Your task to perform on an android device: Clear the cart on costco. Search for "razer kraken" on costco, select the first entry, and add it to the cart. Image 0: 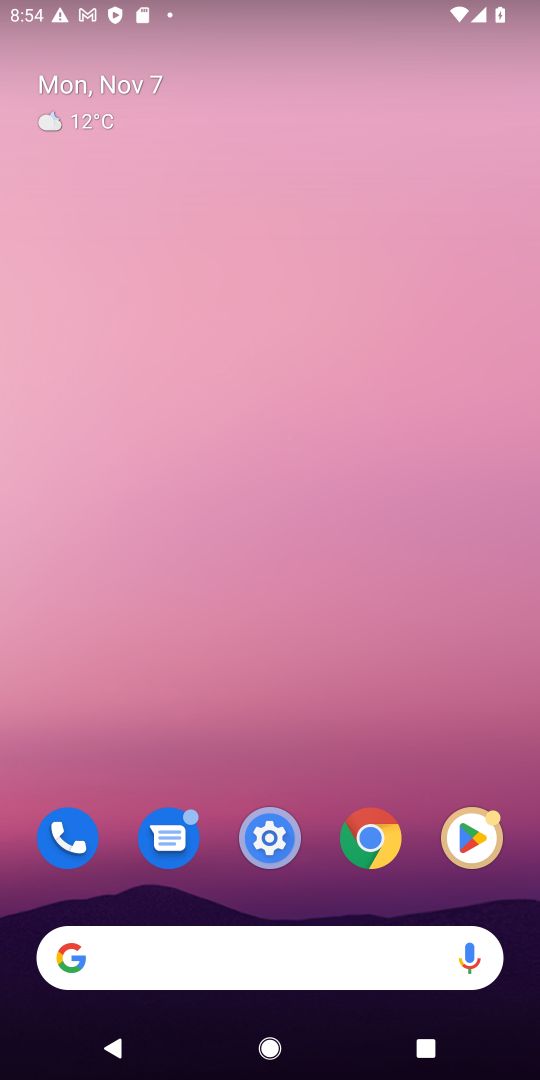
Step 0: click (365, 834)
Your task to perform on an android device: Clear the cart on costco. Search for "razer kraken" on costco, select the first entry, and add it to the cart. Image 1: 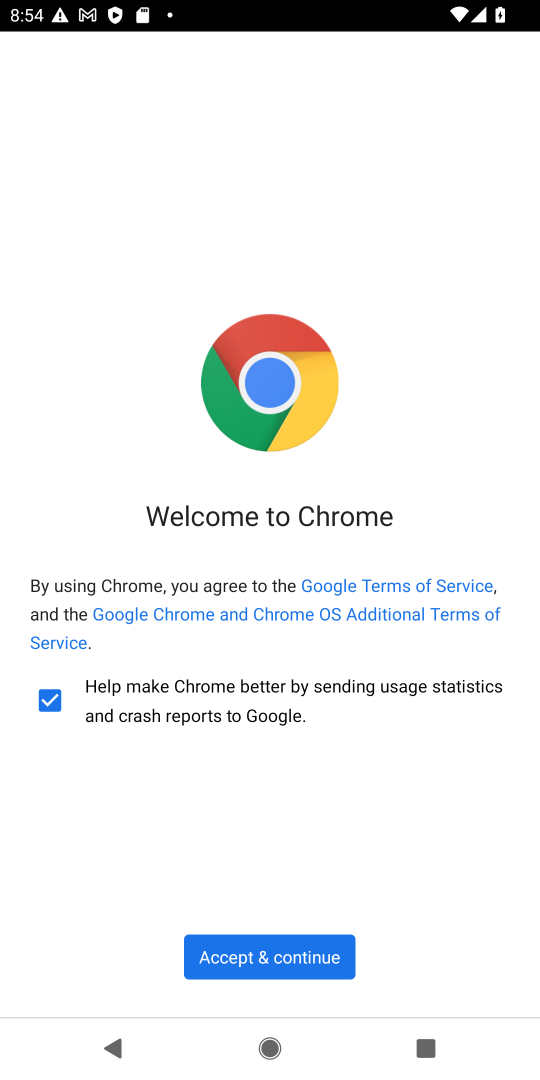
Step 1: click (324, 955)
Your task to perform on an android device: Clear the cart on costco. Search for "razer kraken" on costco, select the first entry, and add it to the cart. Image 2: 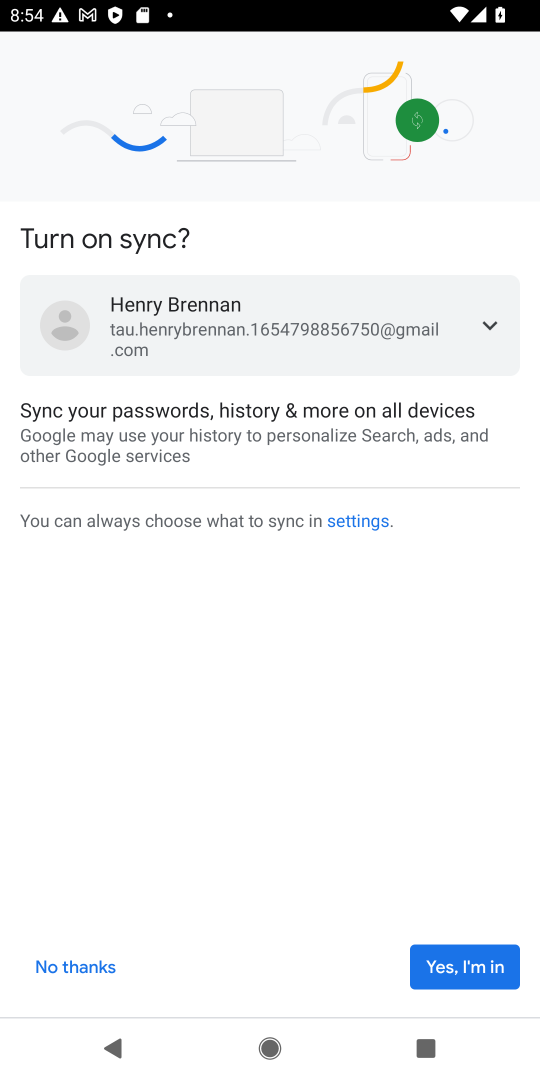
Step 2: click (435, 963)
Your task to perform on an android device: Clear the cart on costco. Search for "razer kraken" on costco, select the first entry, and add it to the cart. Image 3: 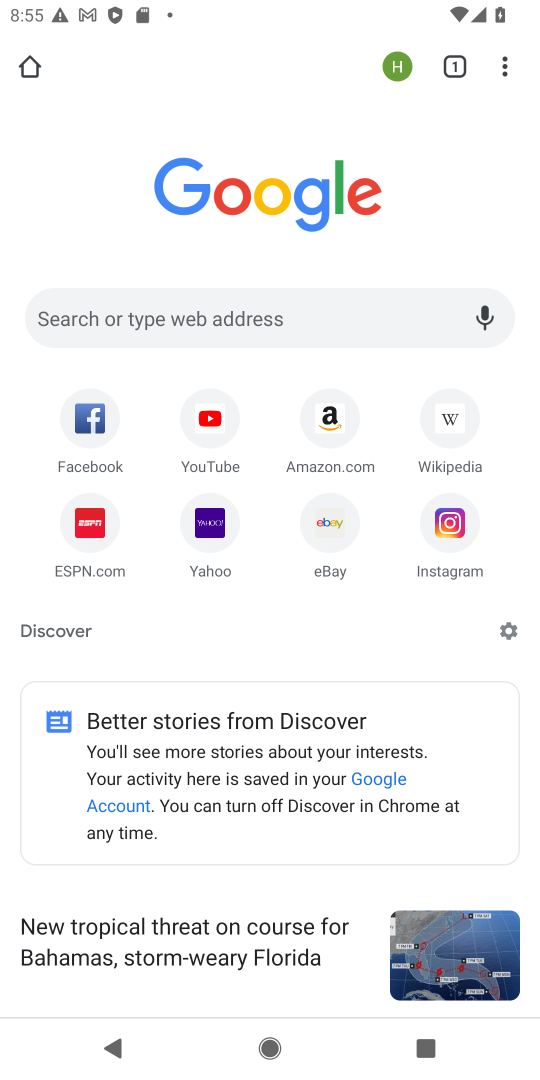
Step 3: click (200, 326)
Your task to perform on an android device: Clear the cart on costco. Search for "razer kraken" on costco, select the first entry, and add it to the cart. Image 4: 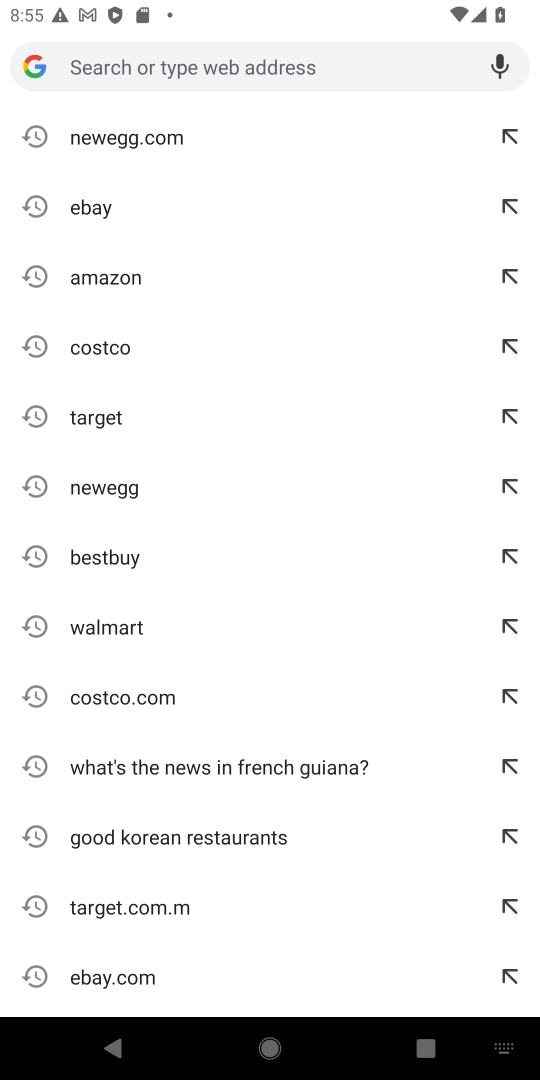
Step 4: click (115, 688)
Your task to perform on an android device: Clear the cart on costco. Search for "razer kraken" on costco, select the first entry, and add it to the cart. Image 5: 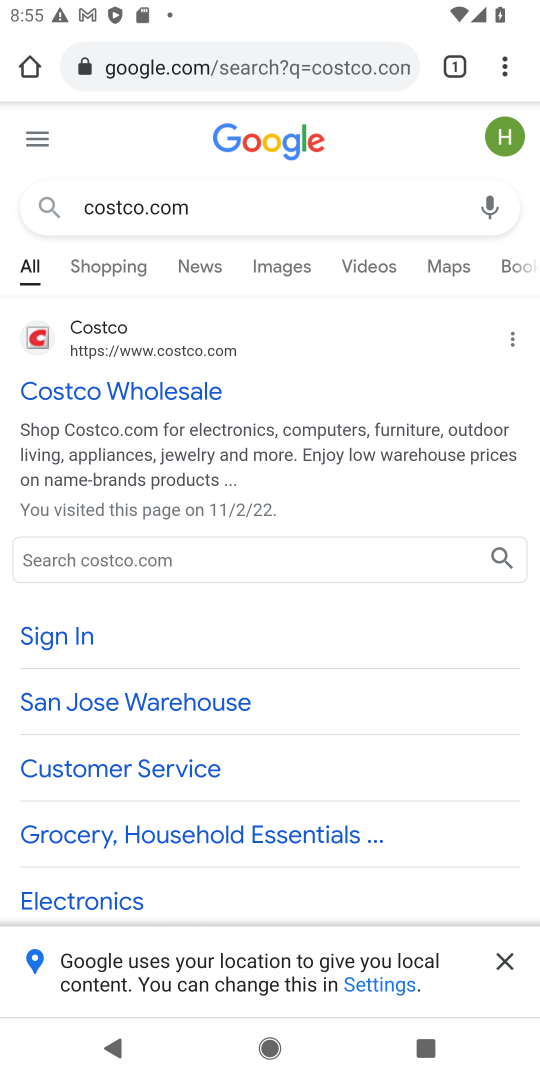
Step 5: click (159, 555)
Your task to perform on an android device: Clear the cart on costco. Search for "razer kraken" on costco, select the first entry, and add it to the cart. Image 6: 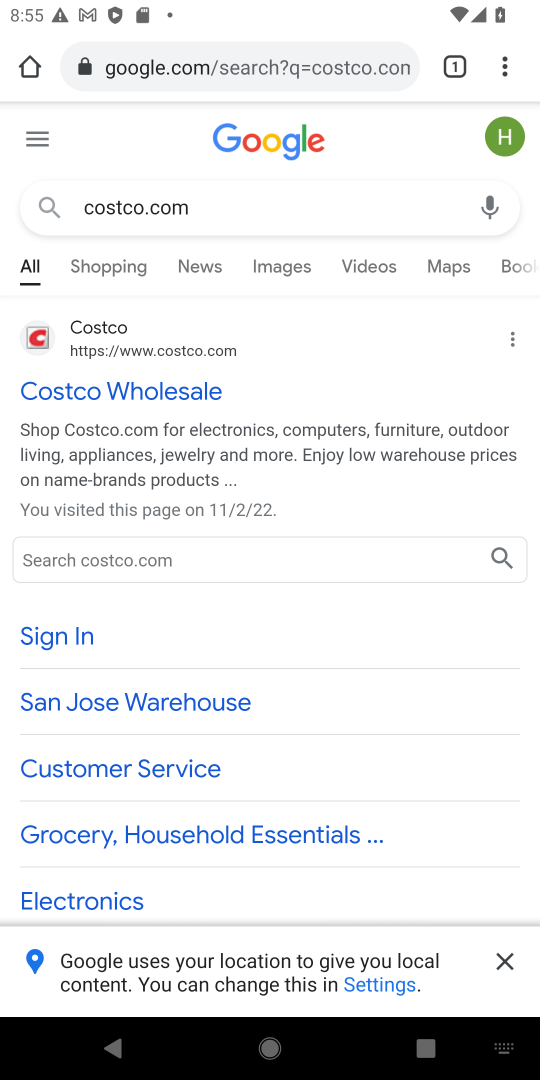
Step 6: type "razer kraken"
Your task to perform on an android device: Clear the cart on costco. Search for "razer kraken" on costco, select the first entry, and add it to the cart. Image 7: 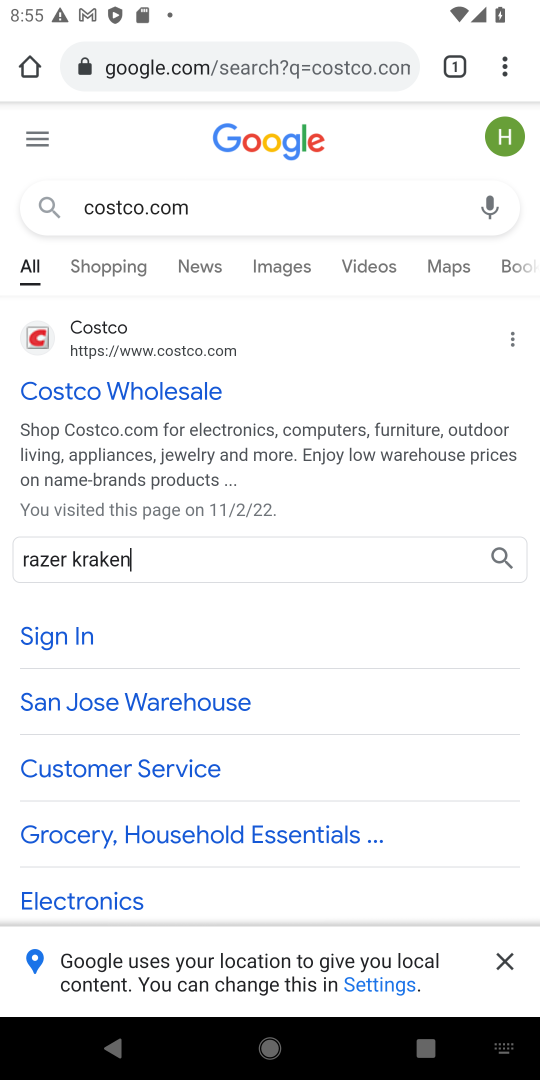
Step 7: click (499, 555)
Your task to perform on an android device: Clear the cart on costco. Search for "razer kraken" on costco, select the first entry, and add it to the cart. Image 8: 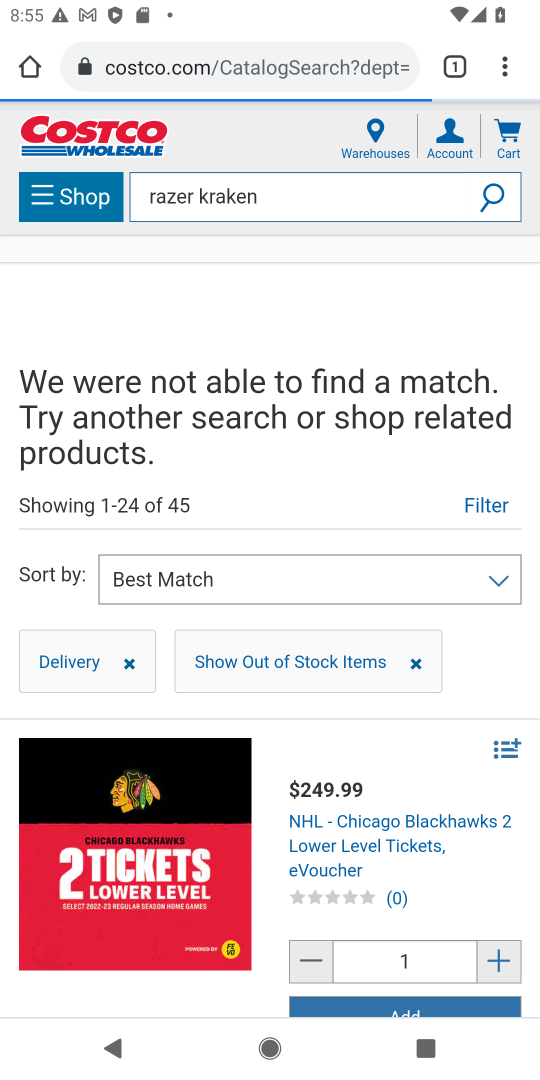
Step 8: drag from (401, 767) to (495, 288)
Your task to perform on an android device: Clear the cart on costco. Search for "razer kraken" on costco, select the first entry, and add it to the cart. Image 9: 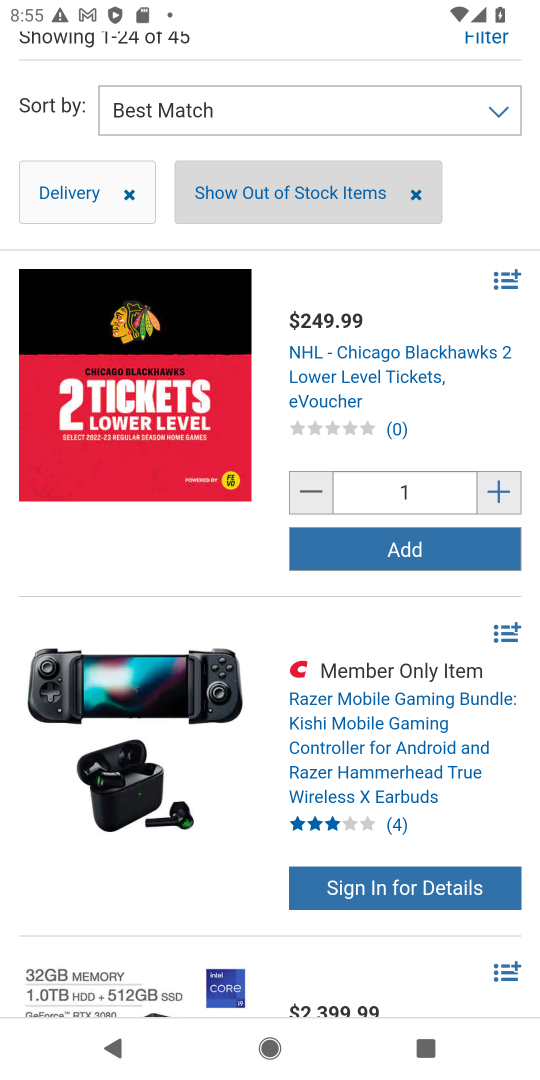
Step 9: click (428, 813)
Your task to perform on an android device: Clear the cart on costco. Search for "razer kraken" on costco, select the first entry, and add it to the cart. Image 10: 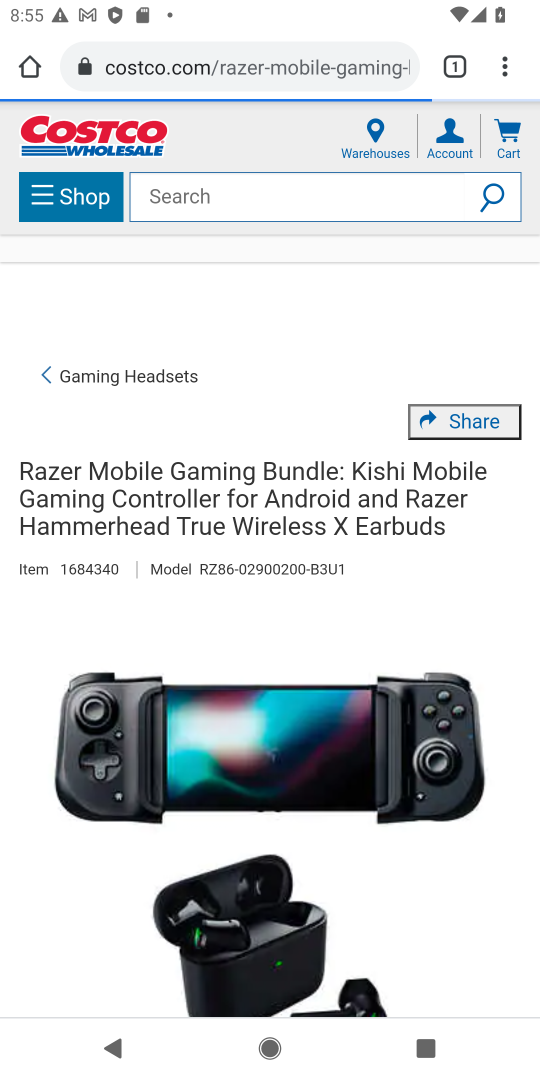
Step 10: drag from (457, 1004) to (526, 583)
Your task to perform on an android device: Clear the cart on costco. Search for "razer kraken" on costco, select the first entry, and add it to the cart. Image 11: 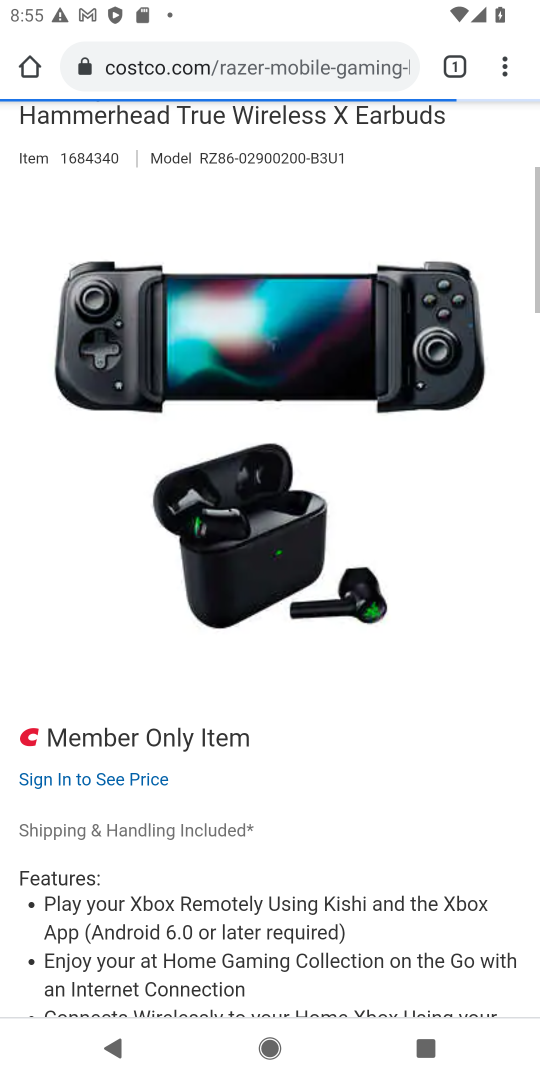
Step 11: drag from (322, 890) to (425, 403)
Your task to perform on an android device: Clear the cart on costco. Search for "razer kraken" on costco, select the first entry, and add it to the cart. Image 12: 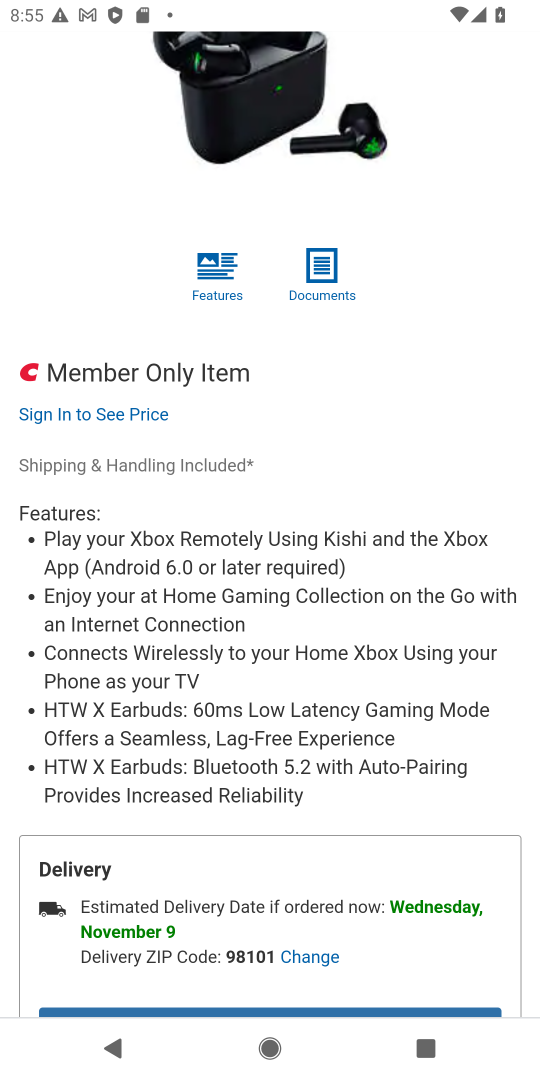
Step 12: drag from (290, 839) to (447, 266)
Your task to perform on an android device: Clear the cart on costco. Search for "razer kraken" on costco, select the first entry, and add it to the cart. Image 13: 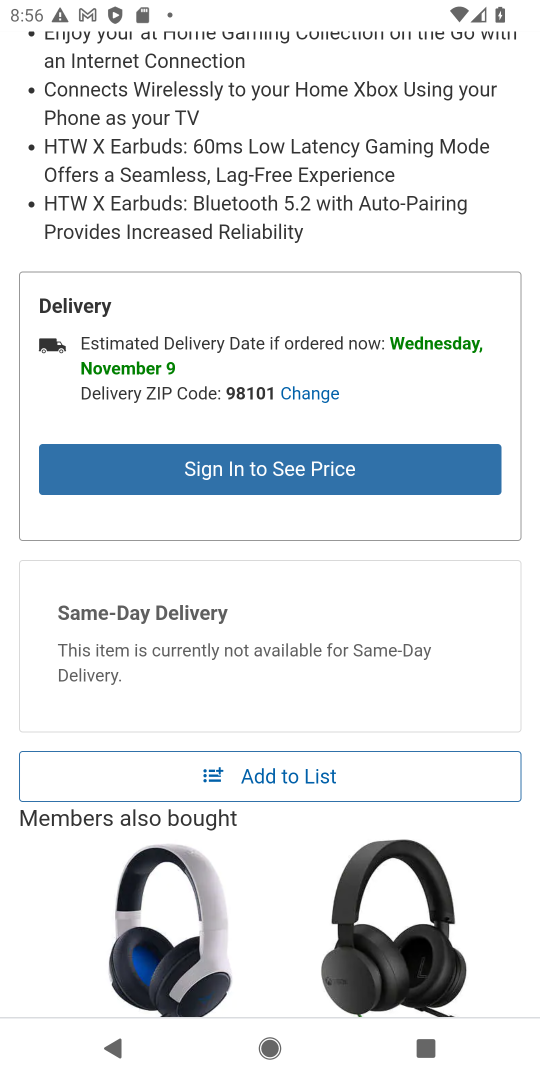
Step 13: click (234, 770)
Your task to perform on an android device: Clear the cart on costco. Search for "razer kraken" on costco, select the first entry, and add it to the cart. Image 14: 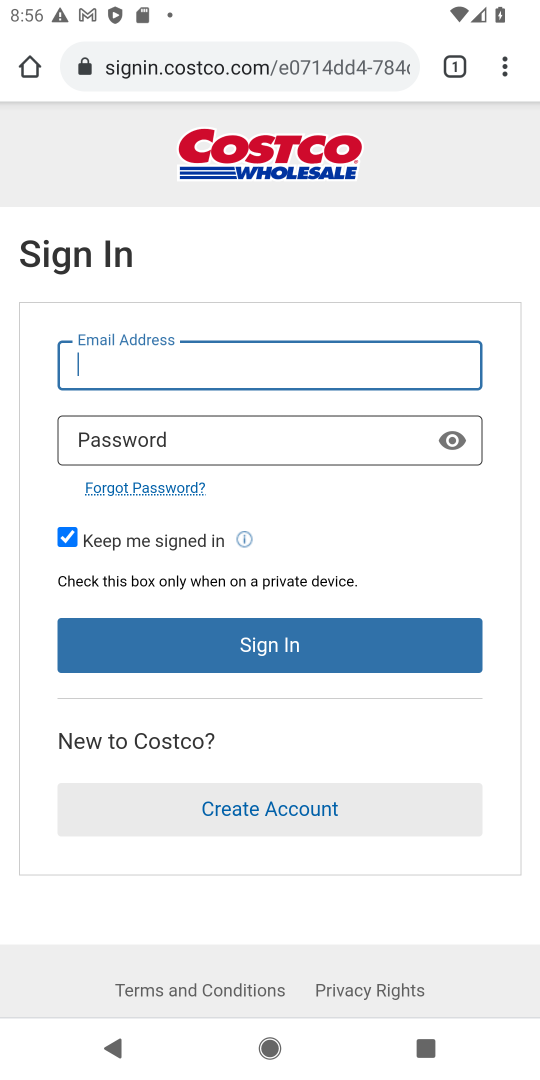
Step 14: task complete